Your task to perform on an android device: What's the weather going to be this weekend? Image 0: 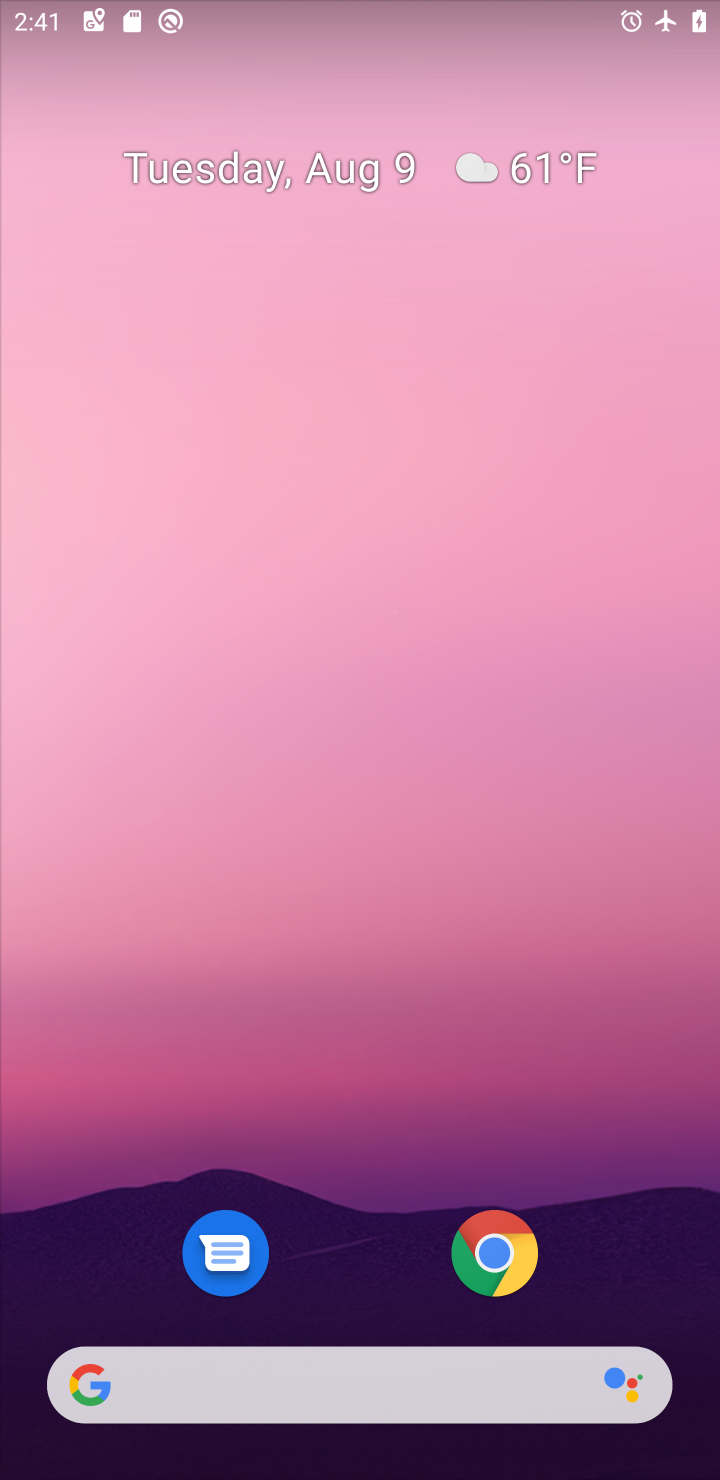
Step 0: drag from (643, 1085) to (362, 1)
Your task to perform on an android device: What's the weather going to be this weekend? Image 1: 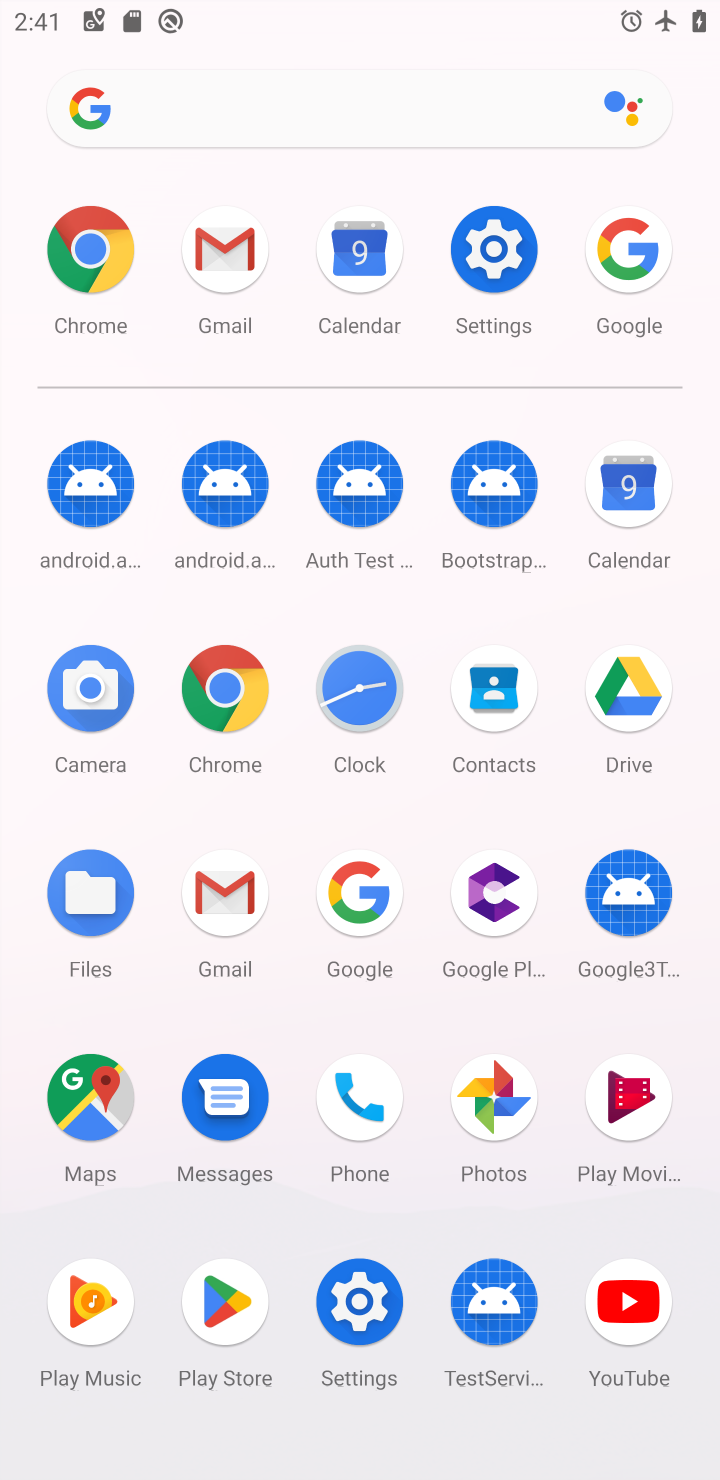
Step 1: click (342, 963)
Your task to perform on an android device: What's the weather going to be this weekend? Image 2: 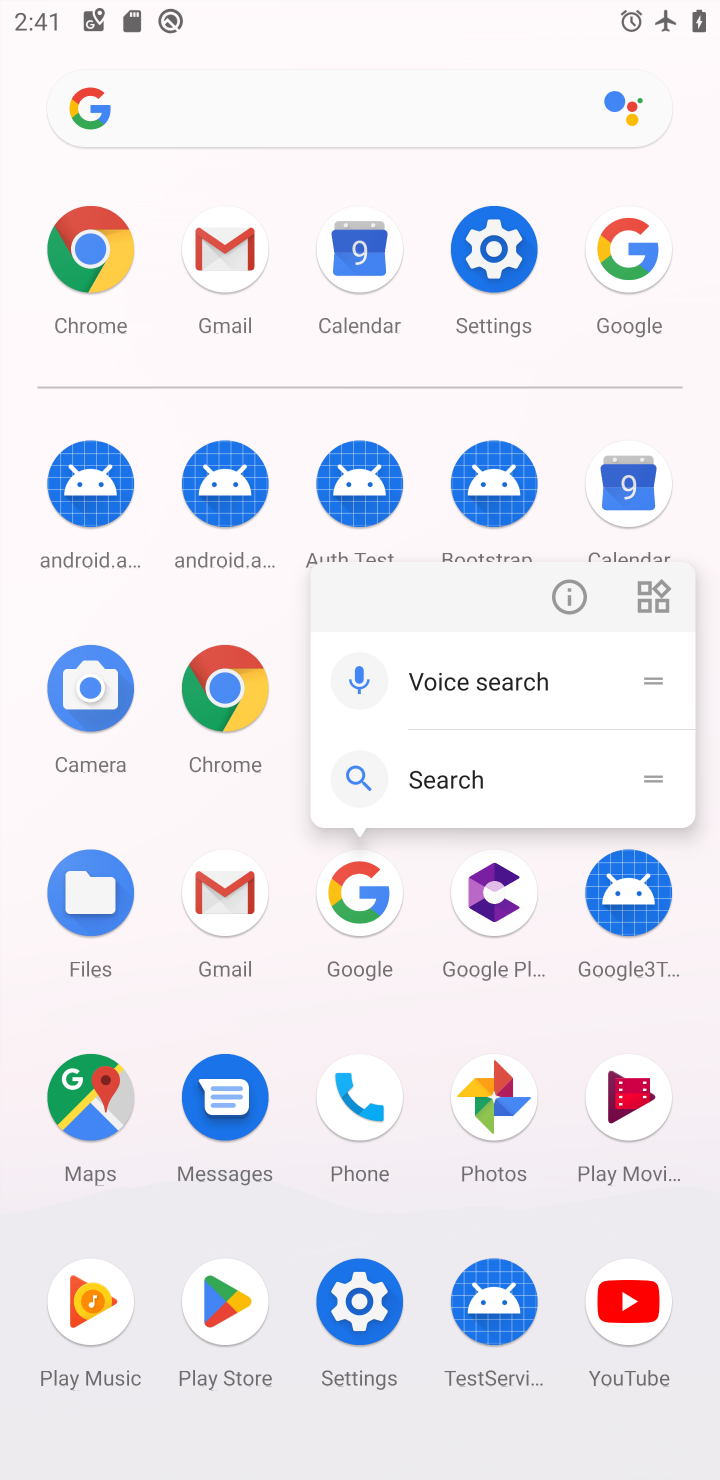
Step 2: click (378, 913)
Your task to perform on an android device: What's the weather going to be this weekend? Image 3: 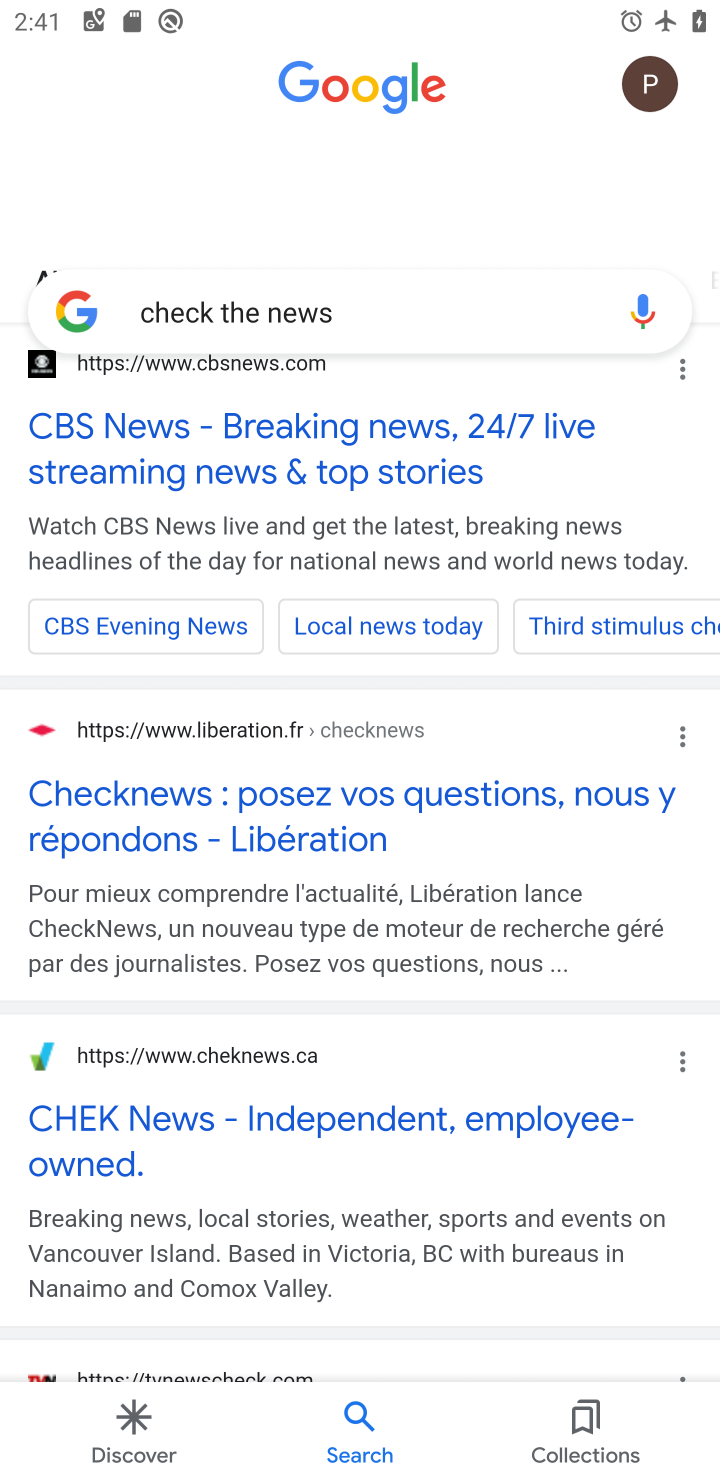
Step 3: press back button
Your task to perform on an android device: What's the weather going to be this weekend? Image 4: 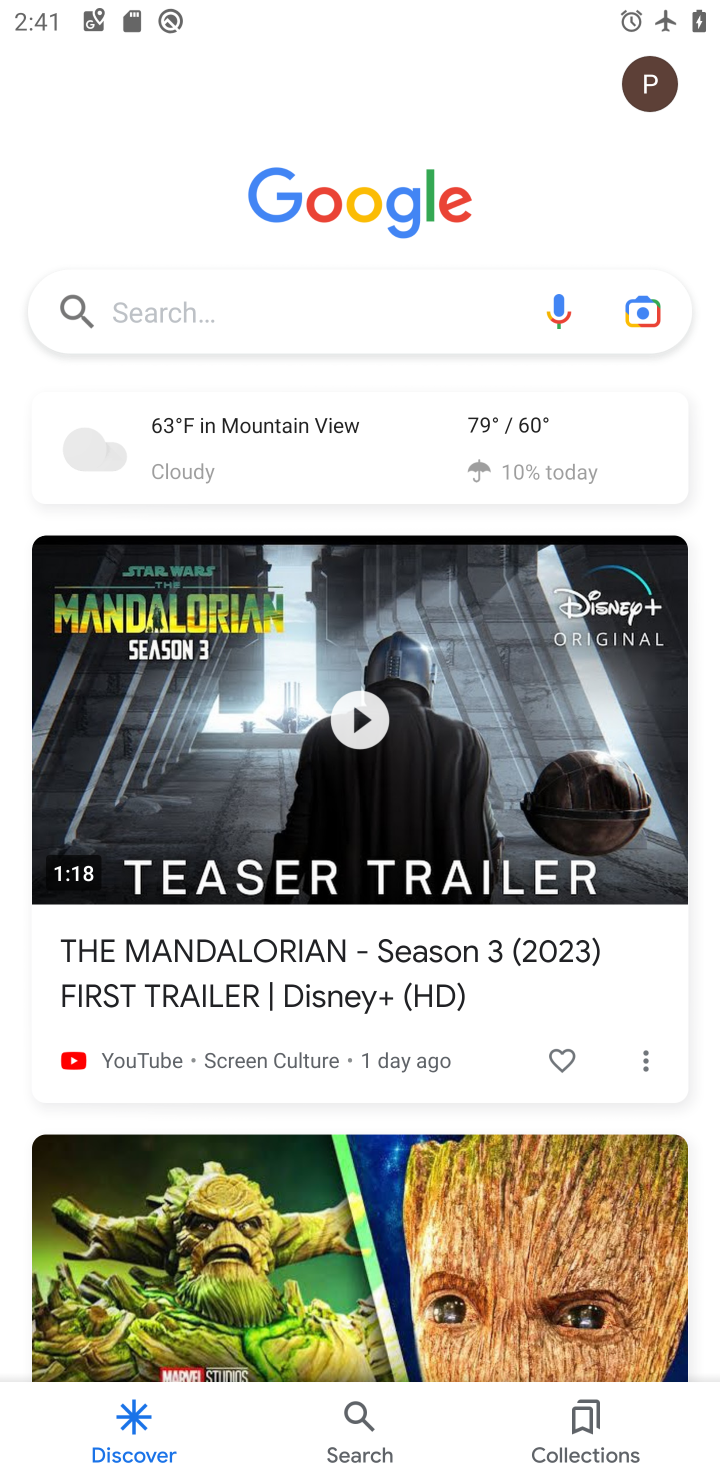
Step 4: click (234, 291)
Your task to perform on an android device: What's the weather going to be this weekend? Image 5: 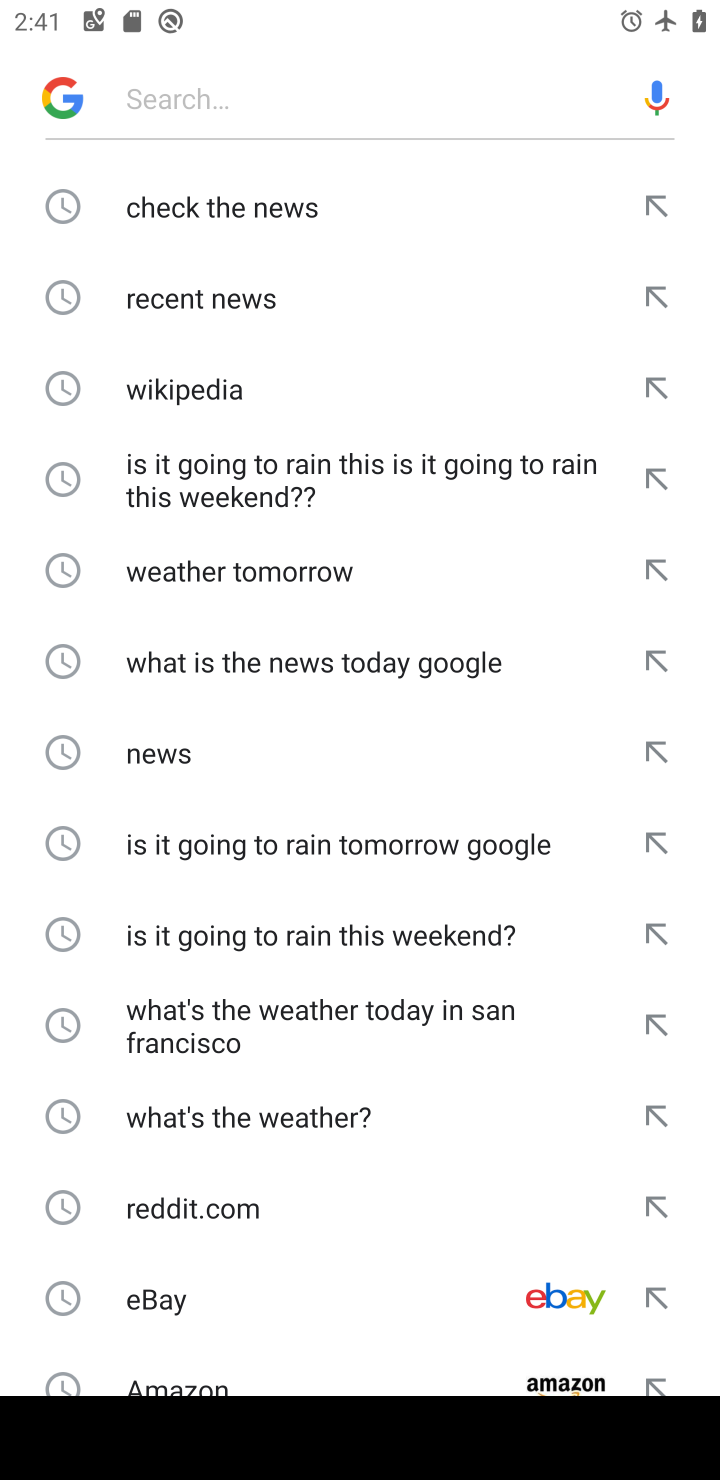
Step 5: type "What's the weather going to be this weekend?"
Your task to perform on an android device: What's the weather going to be this weekend? Image 6: 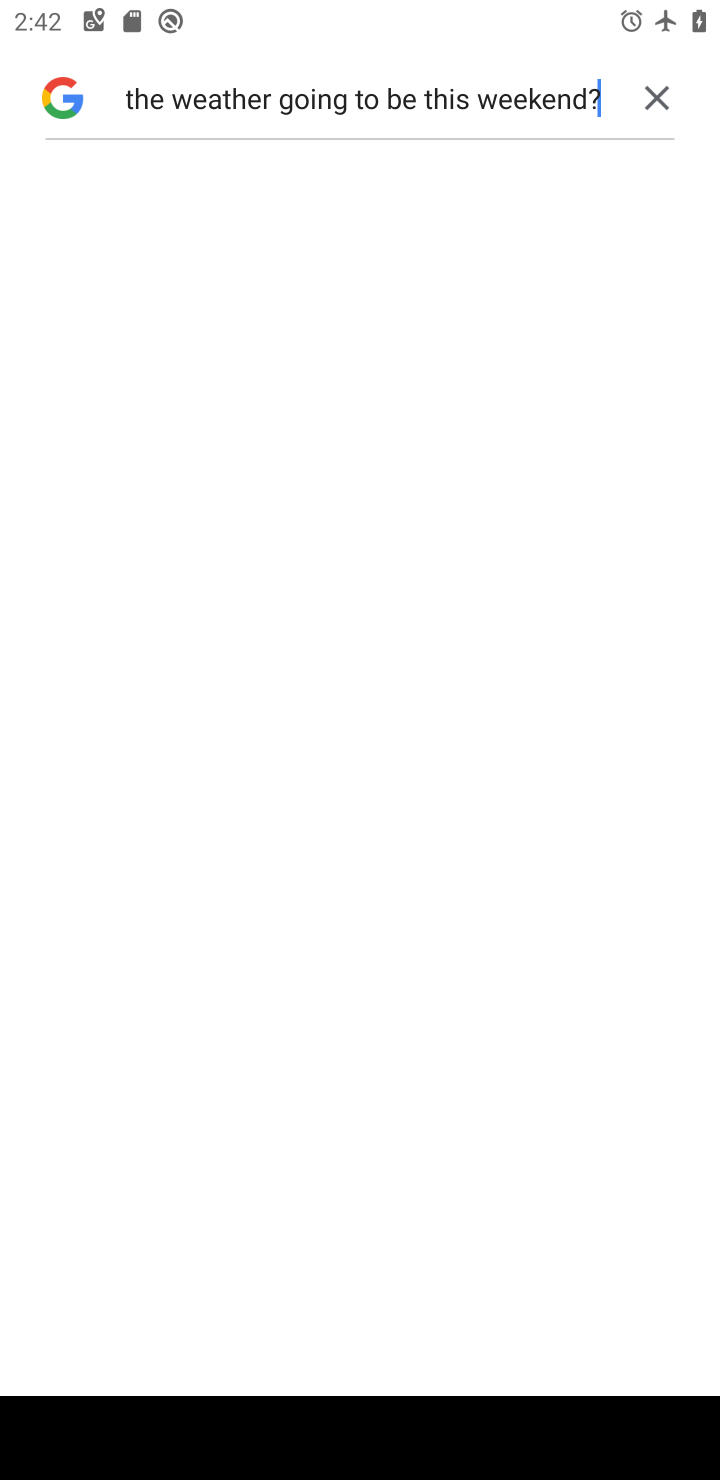
Step 6: task complete